Your task to perform on an android device: turn off sleep mode Image 0: 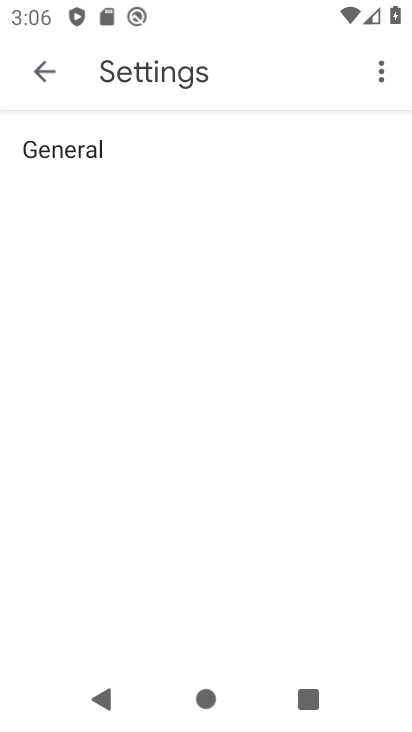
Step 0: press home button
Your task to perform on an android device: turn off sleep mode Image 1: 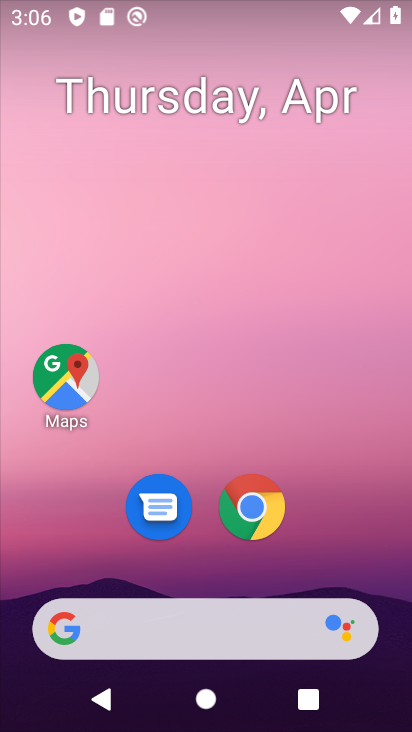
Step 1: drag from (316, 472) to (322, 113)
Your task to perform on an android device: turn off sleep mode Image 2: 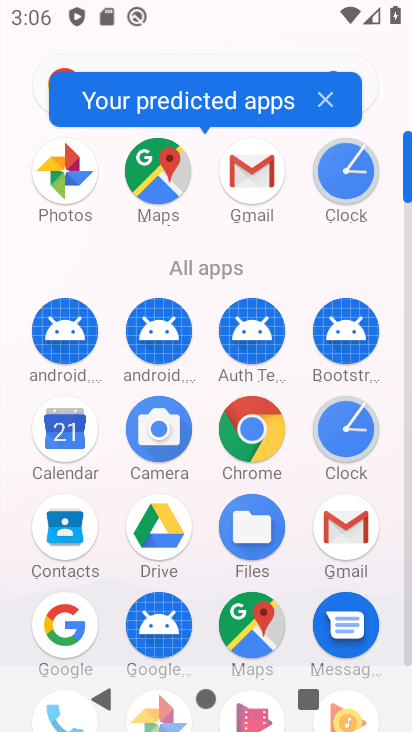
Step 2: drag from (213, 508) to (252, 216)
Your task to perform on an android device: turn off sleep mode Image 3: 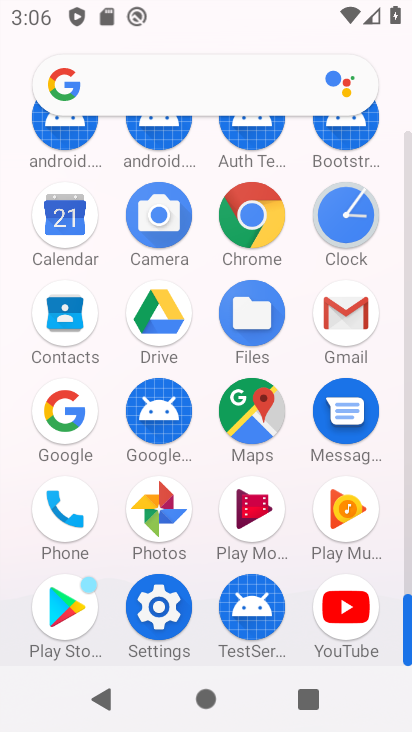
Step 3: click (165, 599)
Your task to perform on an android device: turn off sleep mode Image 4: 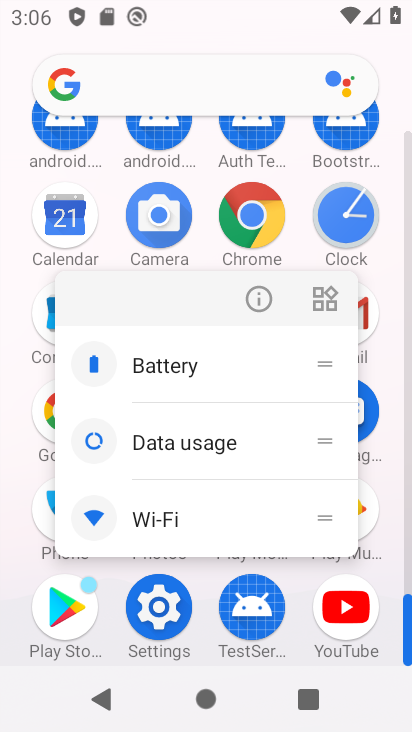
Step 4: click (166, 599)
Your task to perform on an android device: turn off sleep mode Image 5: 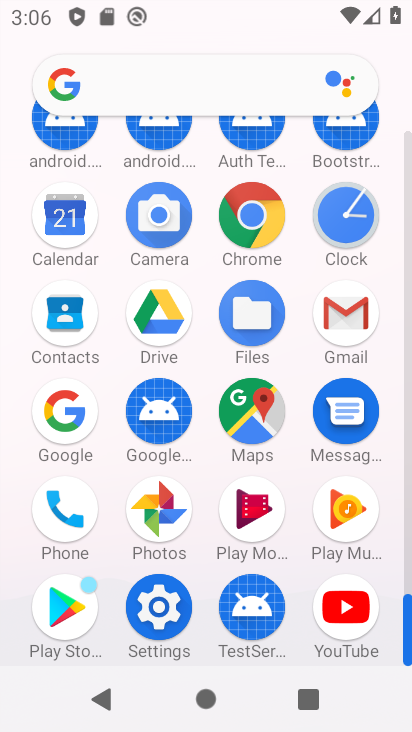
Step 5: click (166, 599)
Your task to perform on an android device: turn off sleep mode Image 6: 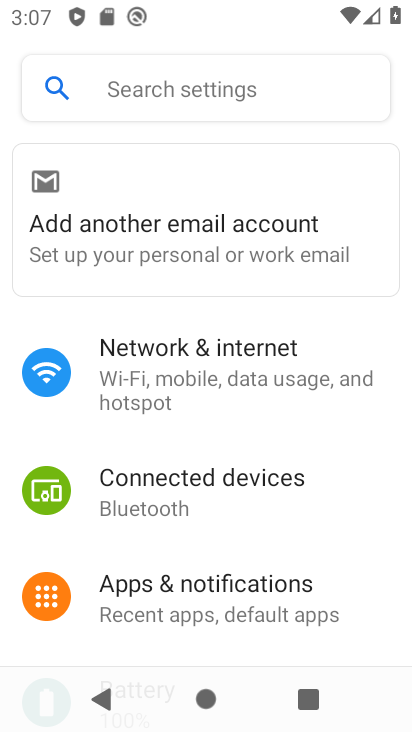
Step 6: drag from (238, 520) to (247, 287)
Your task to perform on an android device: turn off sleep mode Image 7: 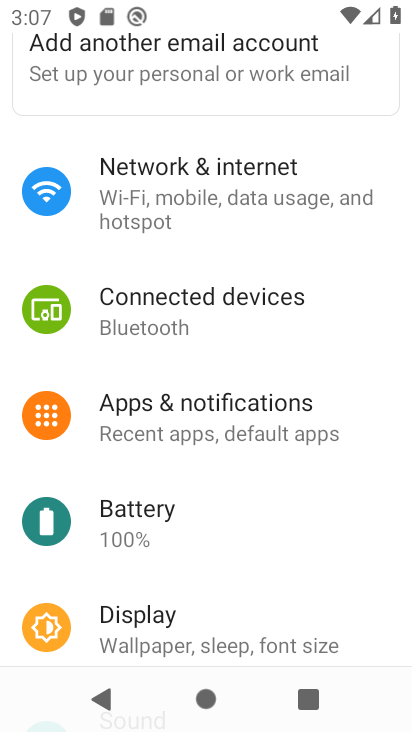
Step 7: drag from (229, 550) to (260, 290)
Your task to perform on an android device: turn off sleep mode Image 8: 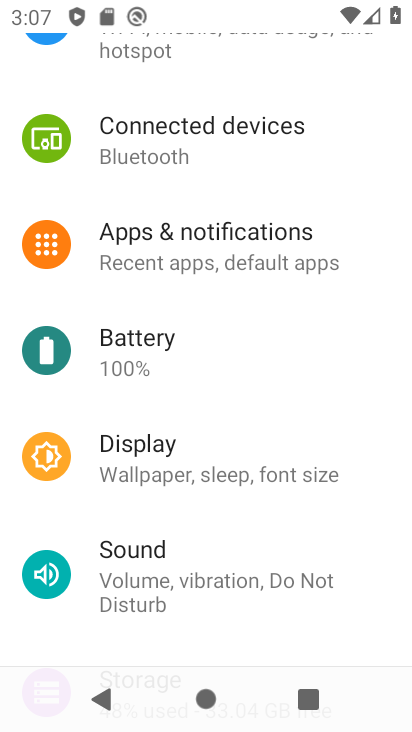
Step 8: click (237, 457)
Your task to perform on an android device: turn off sleep mode Image 9: 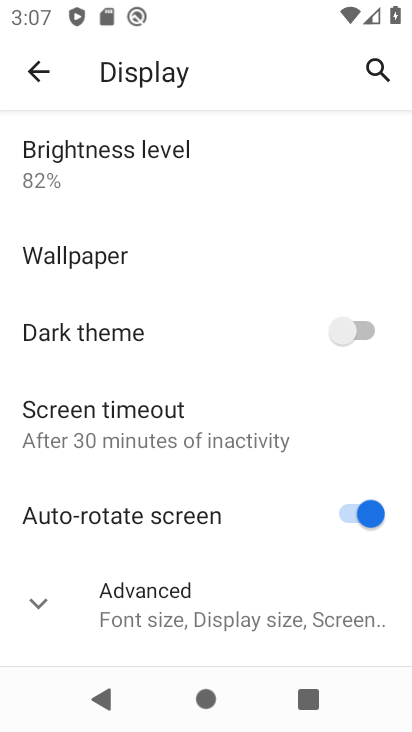
Step 9: click (39, 598)
Your task to perform on an android device: turn off sleep mode Image 10: 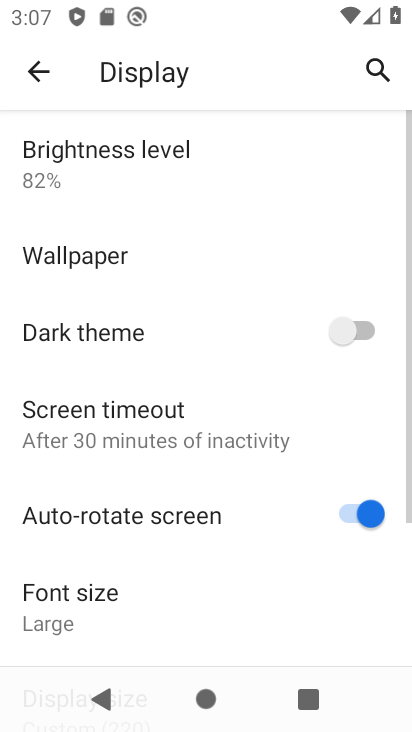
Step 10: task complete